Your task to perform on an android device: allow cookies in the chrome app Image 0: 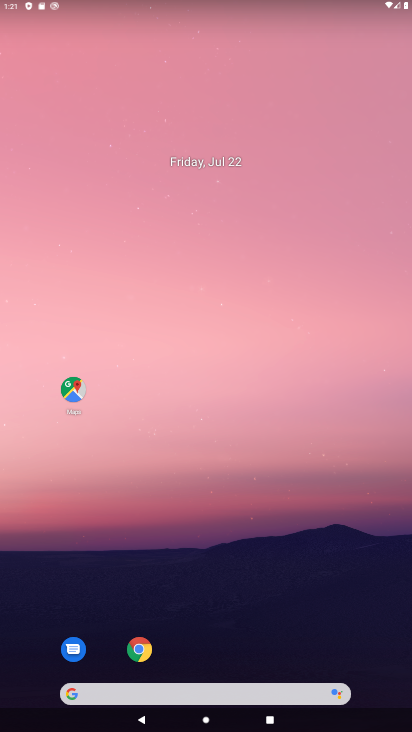
Step 0: click (147, 657)
Your task to perform on an android device: allow cookies in the chrome app Image 1: 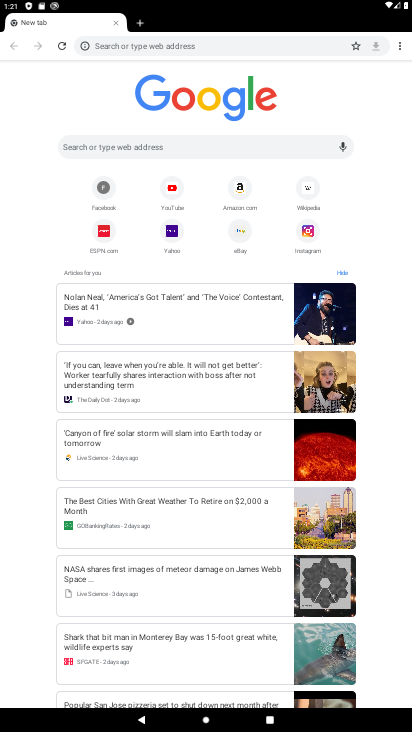
Step 1: click (397, 47)
Your task to perform on an android device: allow cookies in the chrome app Image 2: 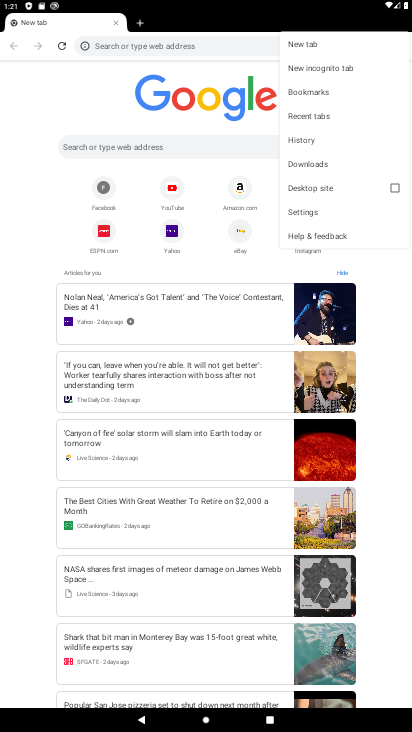
Step 2: click (319, 206)
Your task to perform on an android device: allow cookies in the chrome app Image 3: 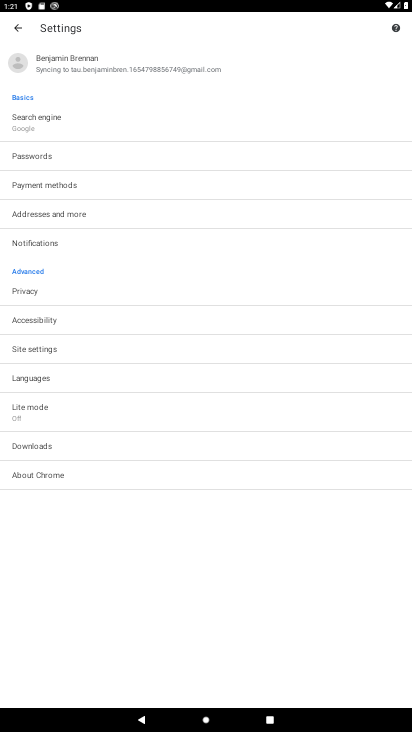
Step 3: click (42, 351)
Your task to perform on an android device: allow cookies in the chrome app Image 4: 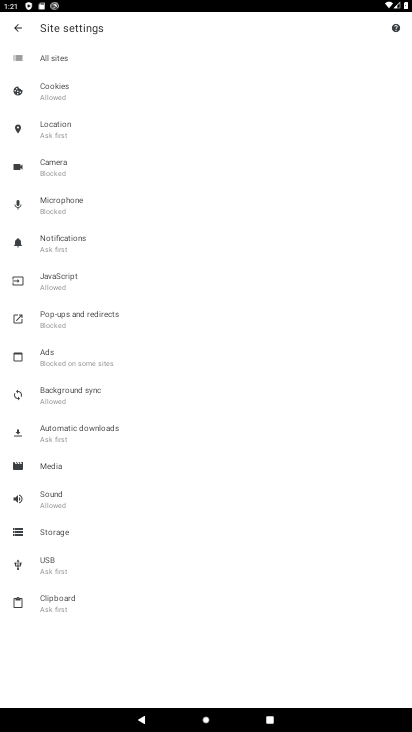
Step 4: click (109, 88)
Your task to perform on an android device: allow cookies in the chrome app Image 5: 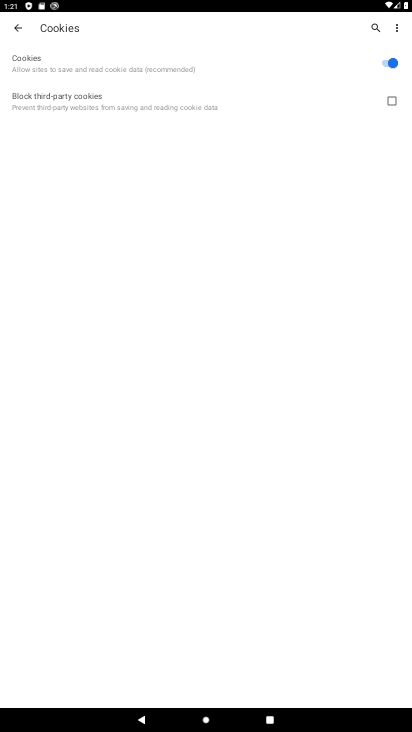
Step 5: task complete